Your task to perform on an android device: refresh tabs in the chrome app Image 0: 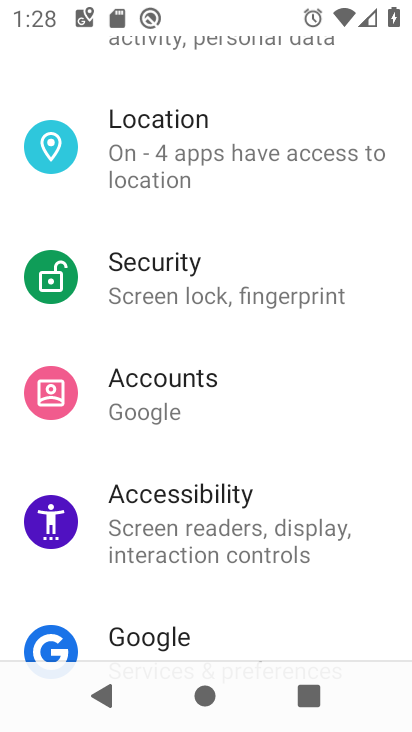
Step 0: press home button
Your task to perform on an android device: refresh tabs in the chrome app Image 1: 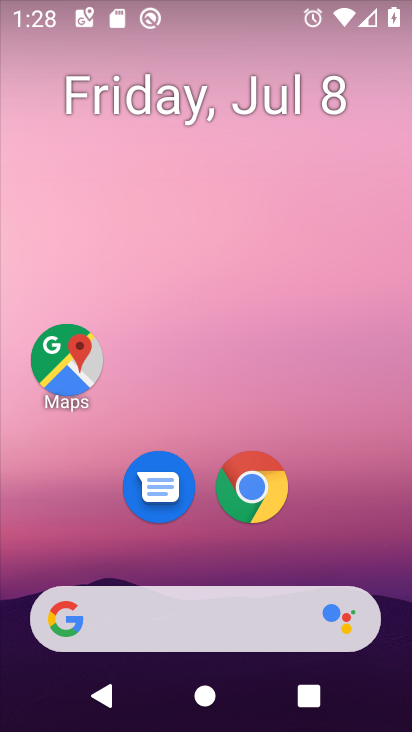
Step 1: drag from (373, 544) to (381, 172)
Your task to perform on an android device: refresh tabs in the chrome app Image 2: 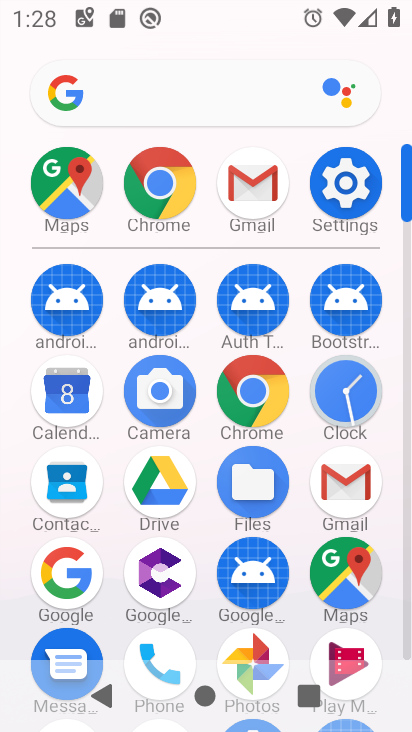
Step 2: click (257, 396)
Your task to perform on an android device: refresh tabs in the chrome app Image 3: 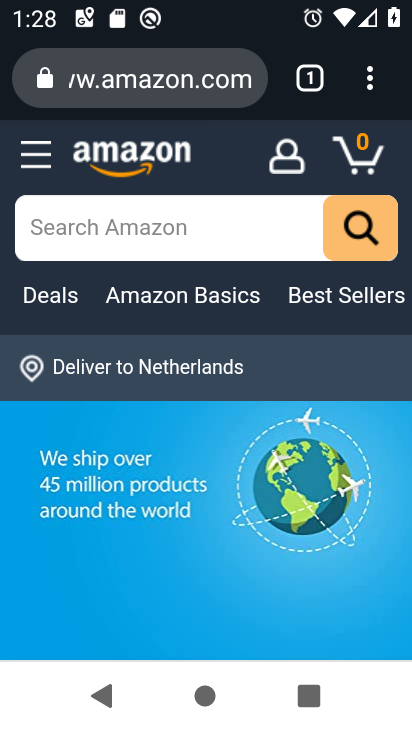
Step 3: click (369, 95)
Your task to perform on an android device: refresh tabs in the chrome app Image 4: 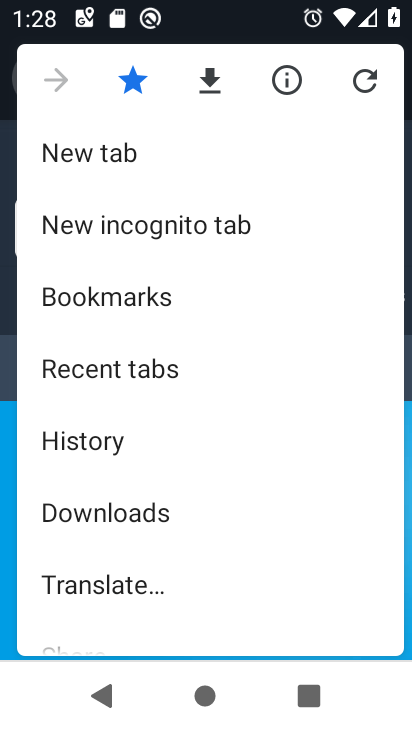
Step 4: click (375, 69)
Your task to perform on an android device: refresh tabs in the chrome app Image 5: 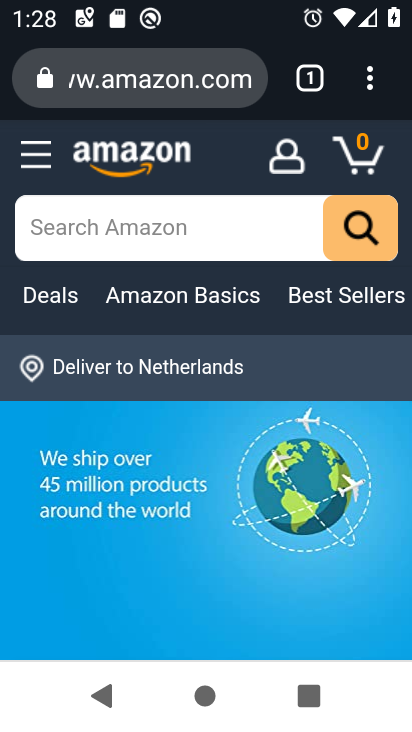
Step 5: task complete